Your task to perform on an android device: toggle pop-ups in chrome Image 0: 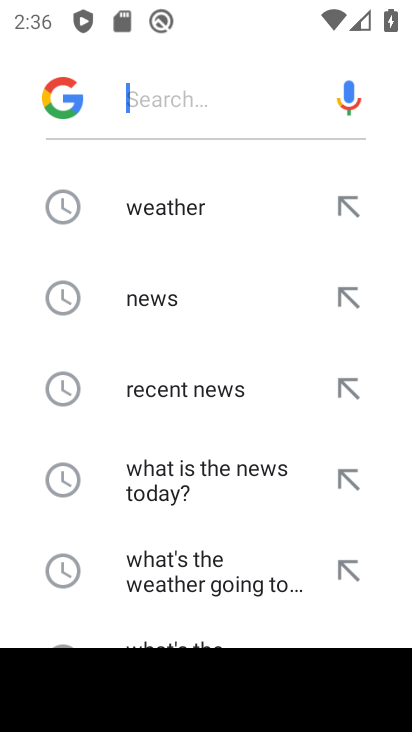
Step 0: click (411, 522)
Your task to perform on an android device: toggle pop-ups in chrome Image 1: 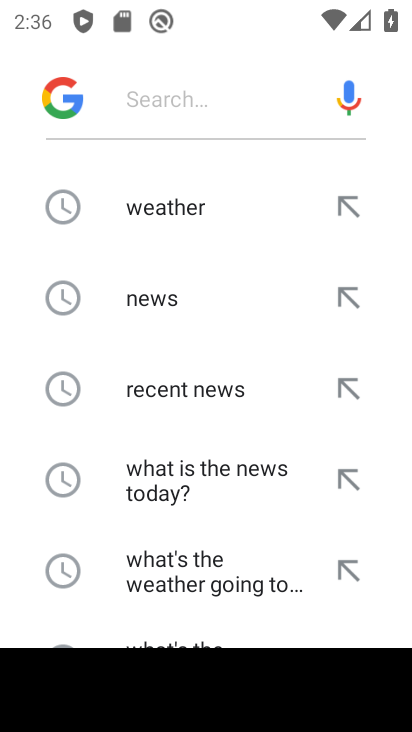
Step 1: press back button
Your task to perform on an android device: toggle pop-ups in chrome Image 2: 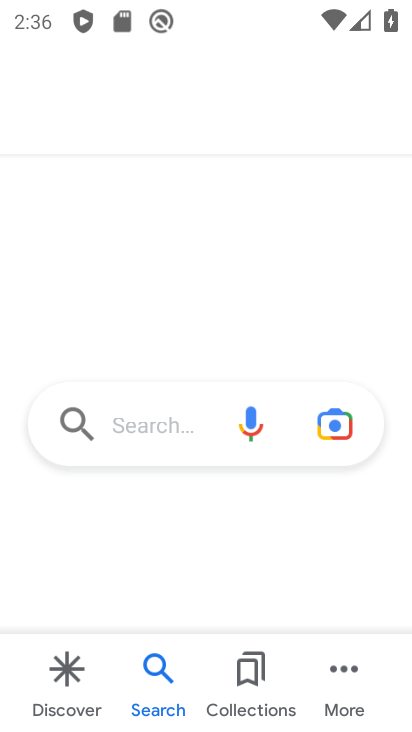
Step 2: press back button
Your task to perform on an android device: toggle pop-ups in chrome Image 3: 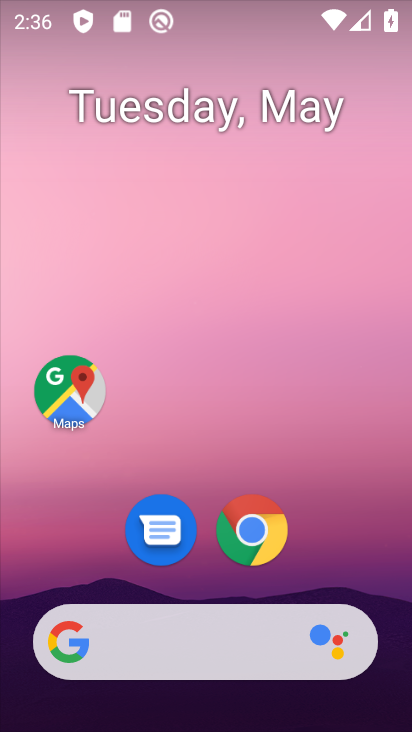
Step 3: click (251, 514)
Your task to perform on an android device: toggle pop-ups in chrome Image 4: 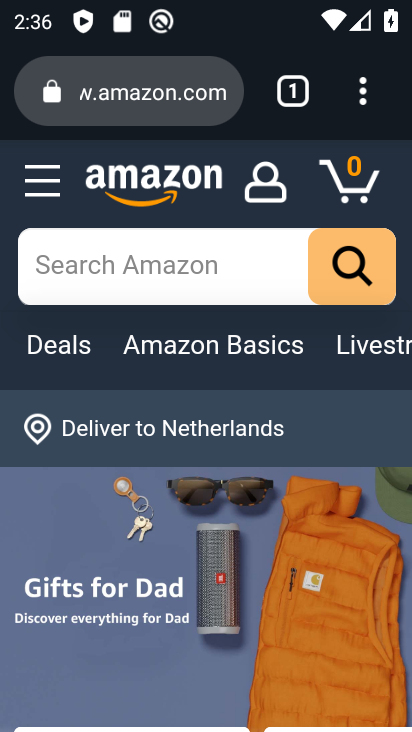
Step 4: click (362, 96)
Your task to perform on an android device: toggle pop-ups in chrome Image 5: 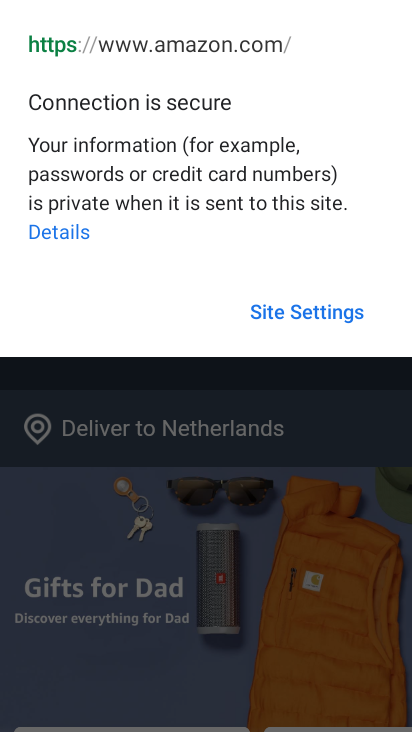
Step 5: press back button
Your task to perform on an android device: toggle pop-ups in chrome Image 6: 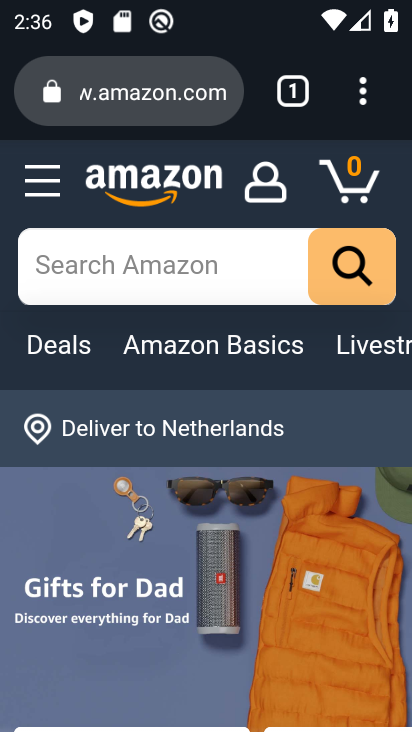
Step 6: click (355, 96)
Your task to perform on an android device: toggle pop-ups in chrome Image 7: 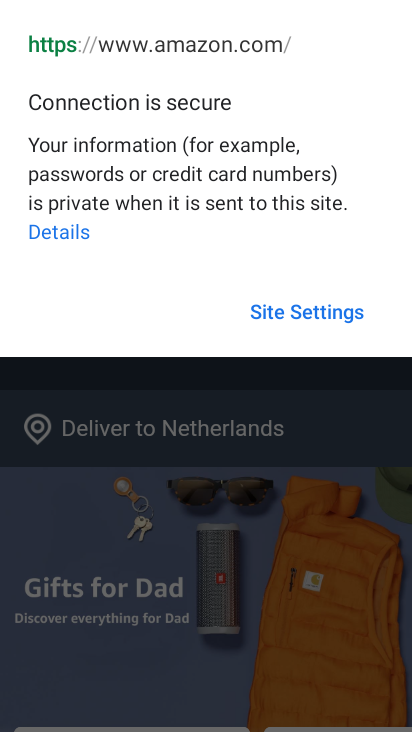
Step 7: press back button
Your task to perform on an android device: toggle pop-ups in chrome Image 8: 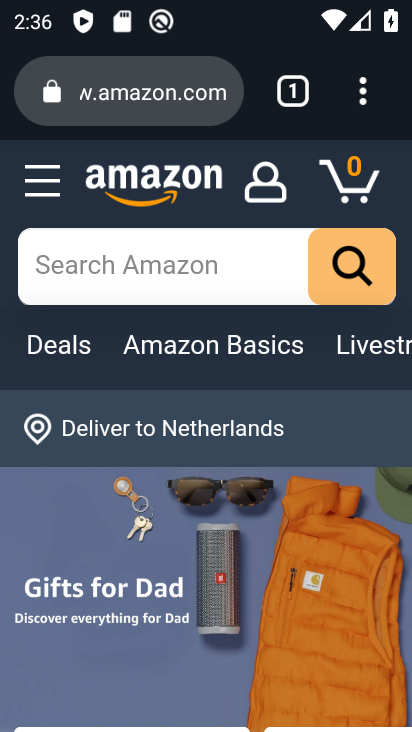
Step 8: click (365, 93)
Your task to perform on an android device: toggle pop-ups in chrome Image 9: 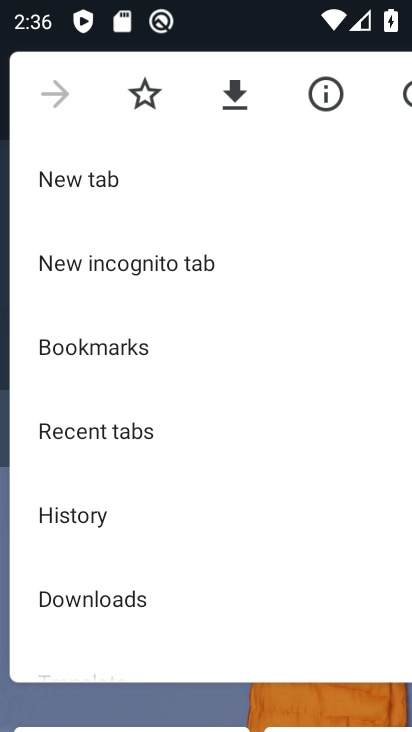
Step 9: drag from (41, 624) to (243, 66)
Your task to perform on an android device: toggle pop-ups in chrome Image 10: 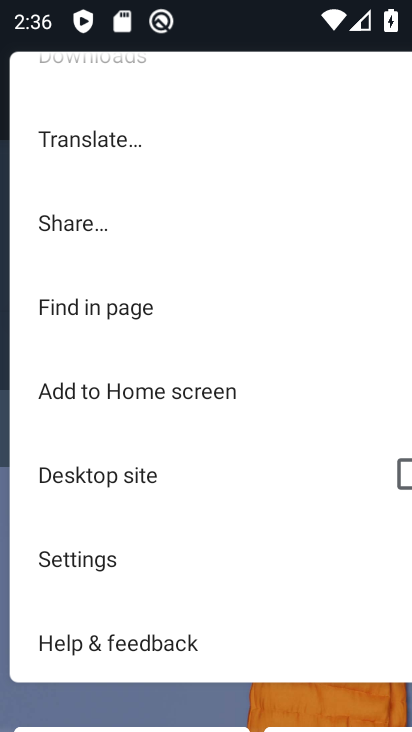
Step 10: click (54, 560)
Your task to perform on an android device: toggle pop-ups in chrome Image 11: 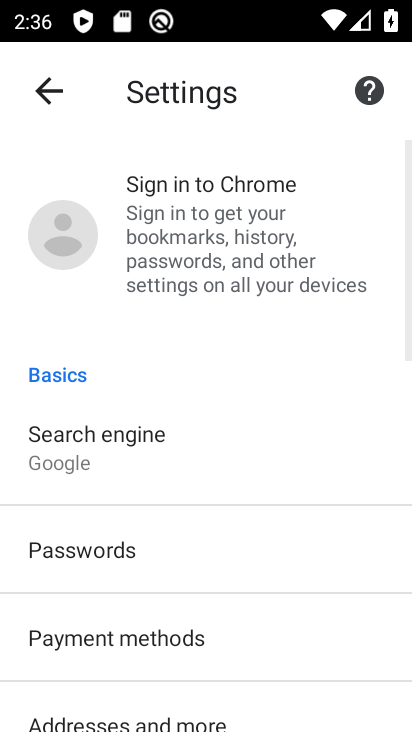
Step 11: drag from (6, 548) to (230, 67)
Your task to perform on an android device: toggle pop-ups in chrome Image 12: 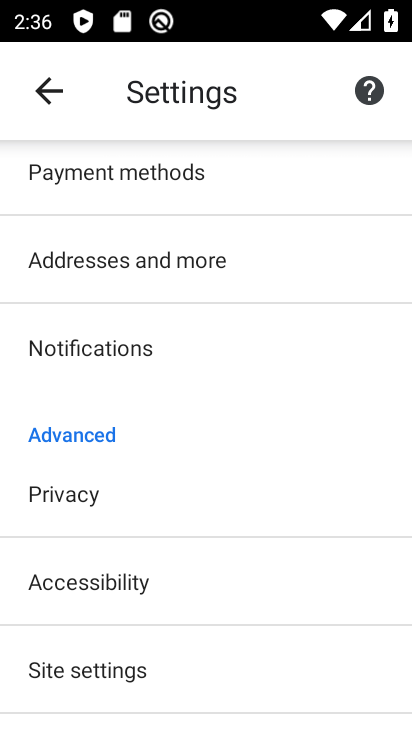
Step 12: click (30, 674)
Your task to perform on an android device: toggle pop-ups in chrome Image 13: 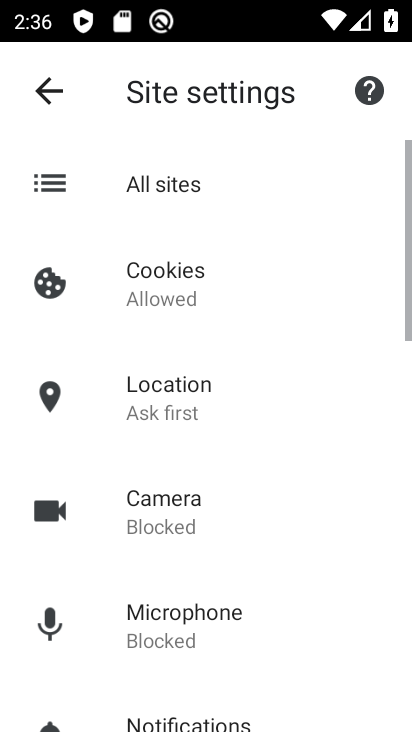
Step 13: drag from (39, 703) to (254, 165)
Your task to perform on an android device: toggle pop-ups in chrome Image 14: 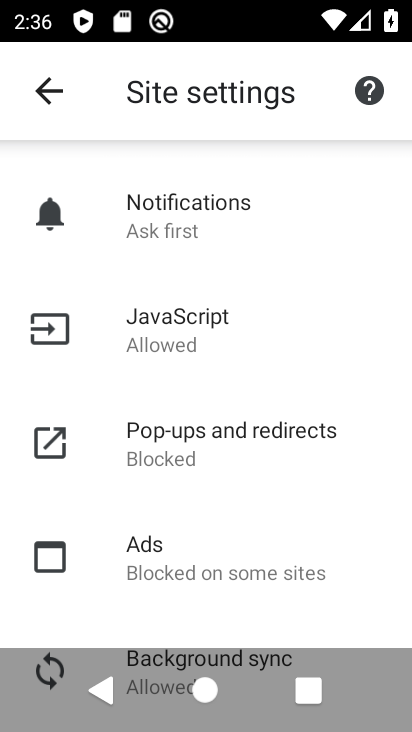
Step 14: click (161, 455)
Your task to perform on an android device: toggle pop-ups in chrome Image 15: 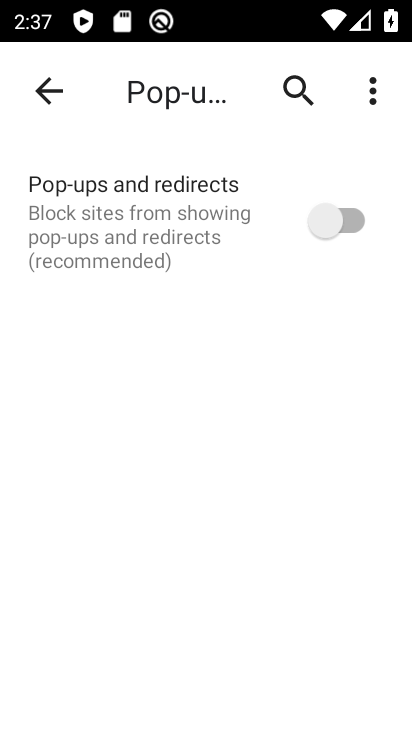
Step 15: click (311, 233)
Your task to perform on an android device: toggle pop-ups in chrome Image 16: 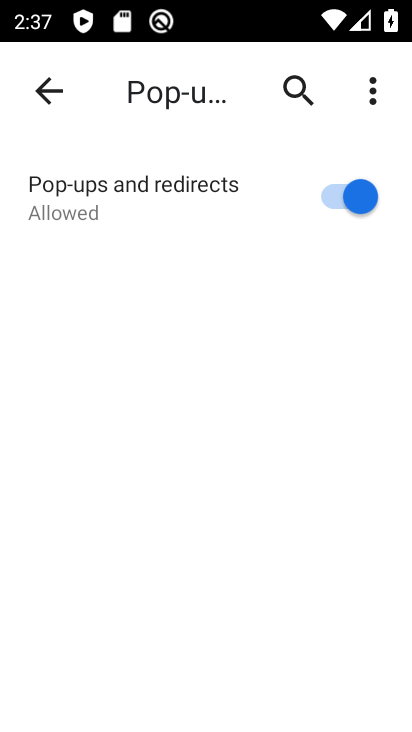
Step 16: task complete